Your task to perform on an android device: See recent photos Image 0: 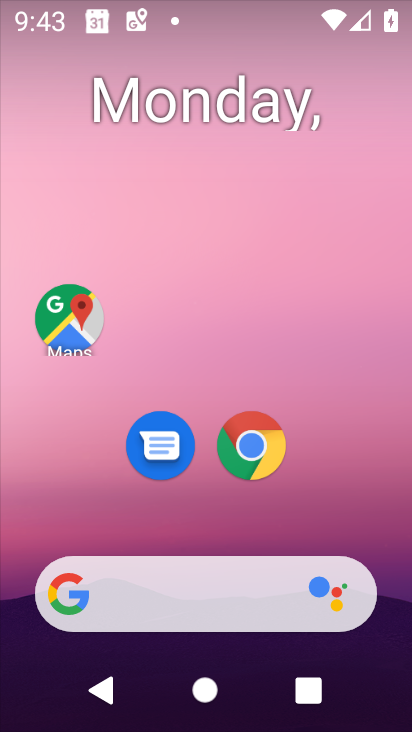
Step 0: drag from (276, 656) to (335, 6)
Your task to perform on an android device: See recent photos Image 1: 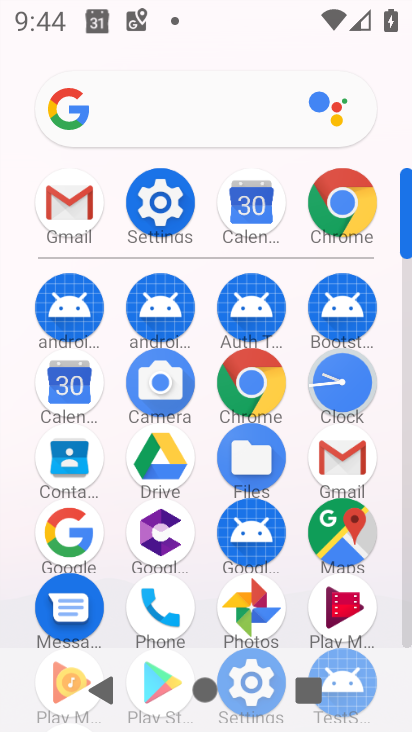
Step 1: click (273, 590)
Your task to perform on an android device: See recent photos Image 2: 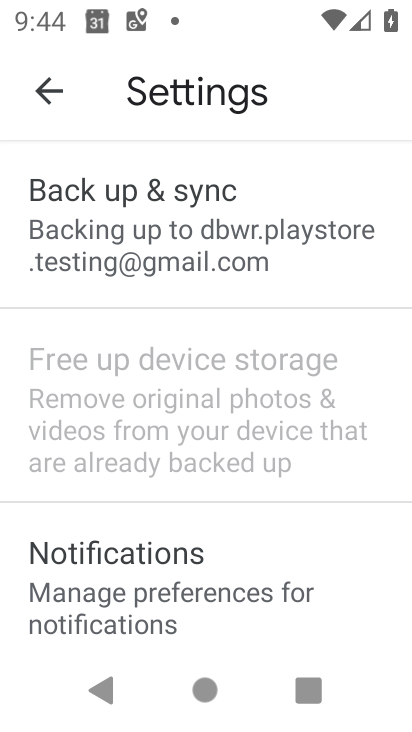
Step 2: click (53, 96)
Your task to perform on an android device: See recent photos Image 3: 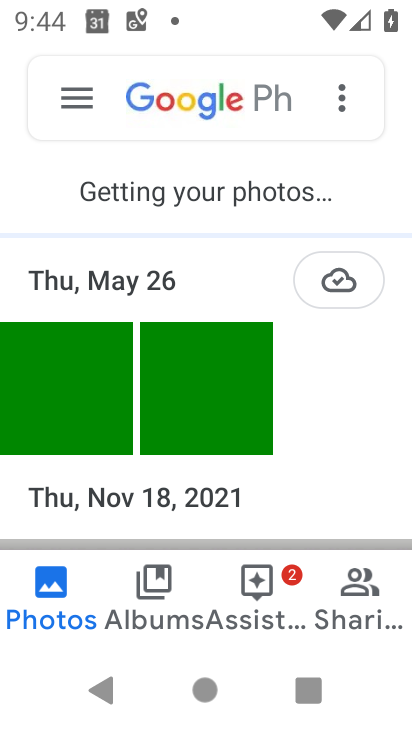
Step 3: task complete